Your task to perform on an android device: Open Youtube and go to "Your channel" Image 0: 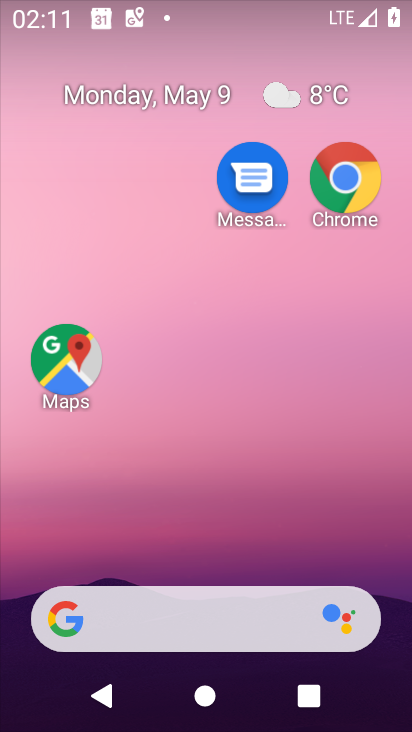
Step 0: drag from (244, 551) to (206, 58)
Your task to perform on an android device: Open Youtube and go to "Your channel" Image 1: 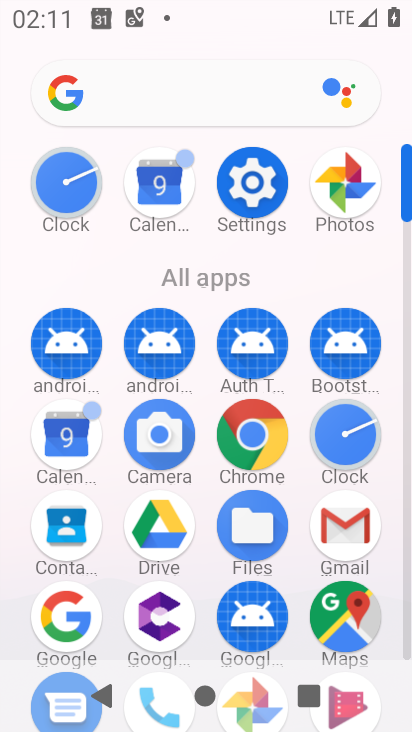
Step 1: drag from (299, 600) to (263, 197)
Your task to perform on an android device: Open Youtube and go to "Your channel" Image 2: 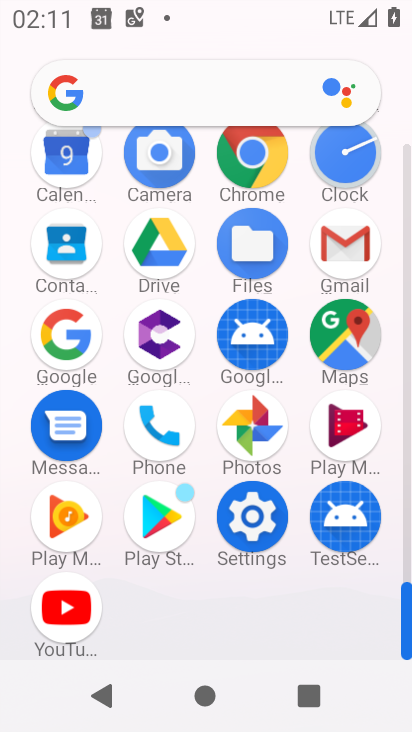
Step 2: click (87, 621)
Your task to perform on an android device: Open Youtube and go to "Your channel" Image 3: 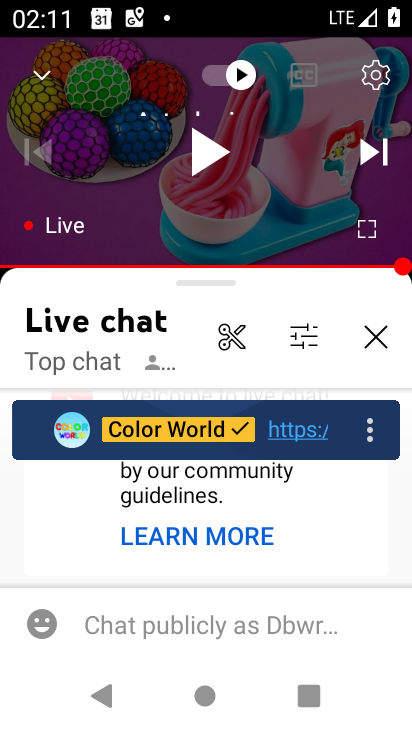
Step 3: click (362, 336)
Your task to perform on an android device: Open Youtube and go to "Your channel" Image 4: 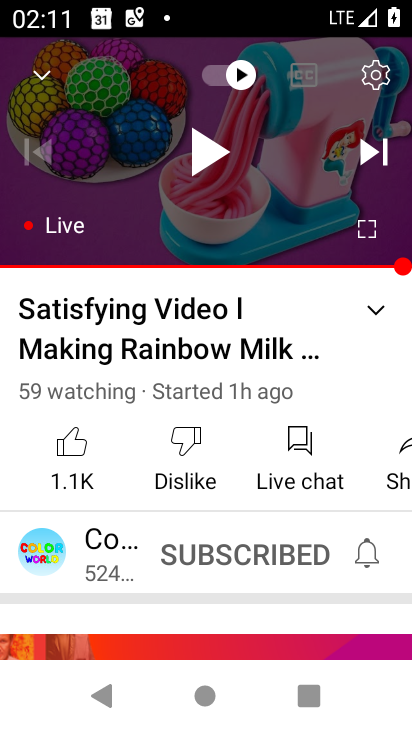
Step 4: click (28, 71)
Your task to perform on an android device: Open Youtube and go to "Your channel" Image 5: 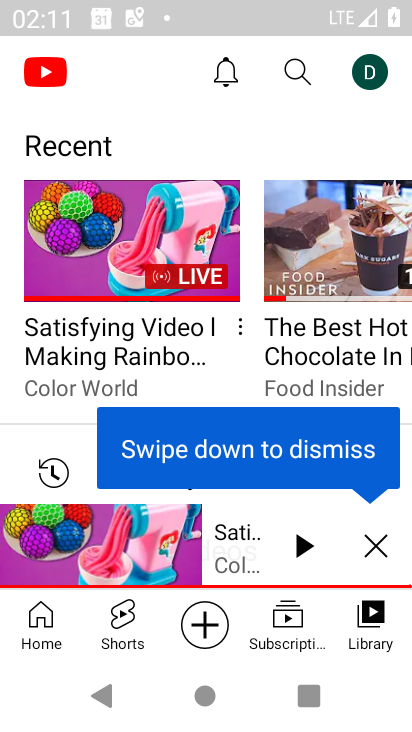
Step 5: click (378, 82)
Your task to perform on an android device: Open Youtube and go to "Your channel" Image 6: 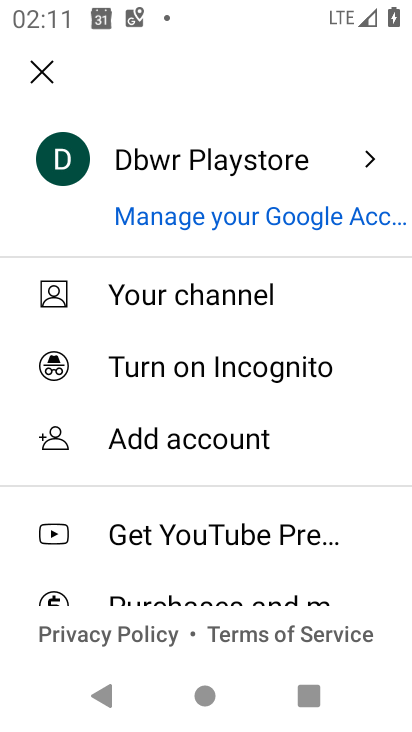
Step 6: click (217, 288)
Your task to perform on an android device: Open Youtube and go to "Your channel" Image 7: 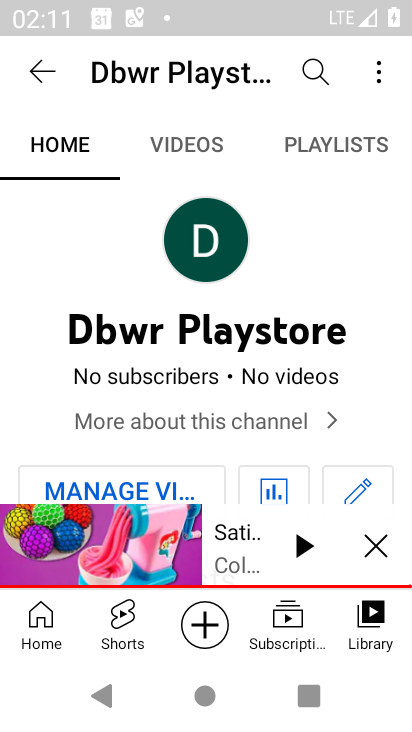
Step 7: click (382, 545)
Your task to perform on an android device: Open Youtube and go to "Your channel" Image 8: 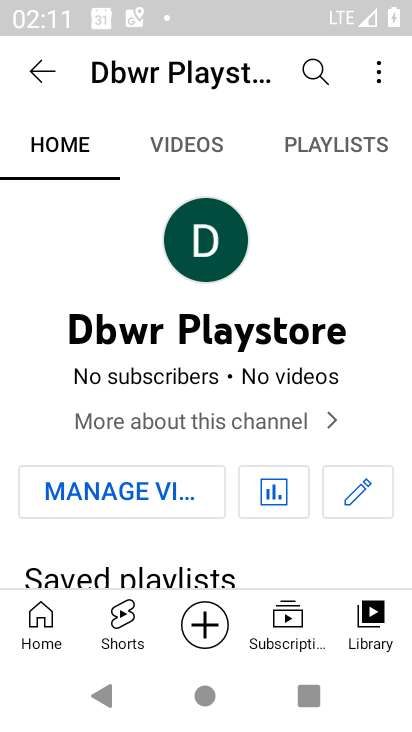
Step 8: task complete